Your task to perform on an android device: Open calendar and show me the fourth week of next month Image 0: 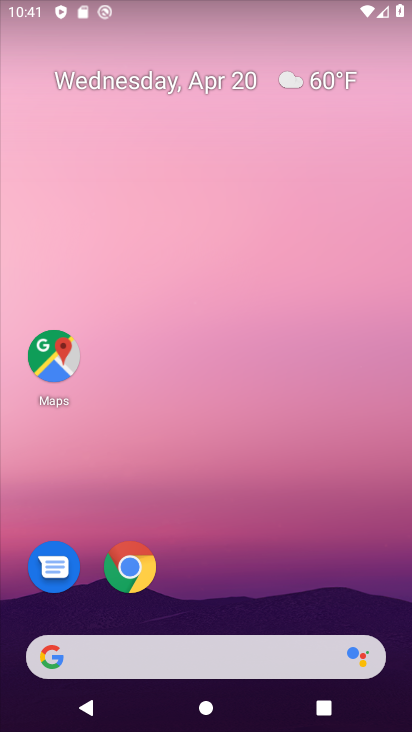
Step 0: drag from (264, 586) to (253, 22)
Your task to perform on an android device: Open calendar and show me the fourth week of next month Image 1: 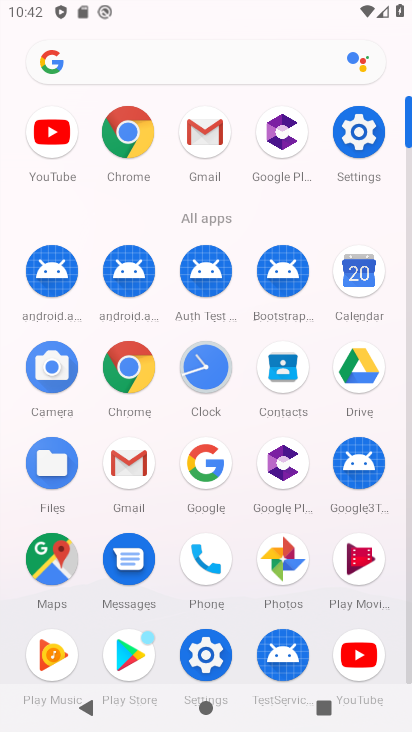
Step 1: click (373, 266)
Your task to perform on an android device: Open calendar and show me the fourth week of next month Image 2: 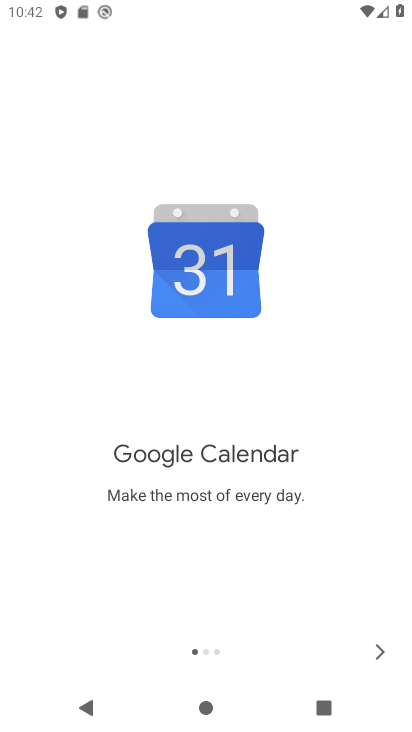
Step 2: click (381, 651)
Your task to perform on an android device: Open calendar and show me the fourth week of next month Image 3: 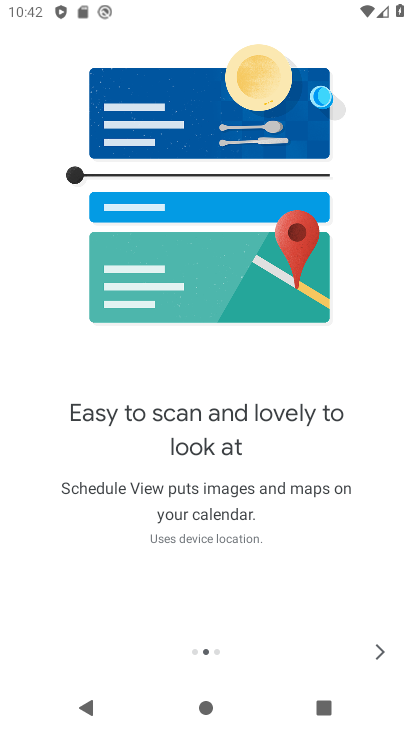
Step 3: click (382, 651)
Your task to perform on an android device: Open calendar and show me the fourth week of next month Image 4: 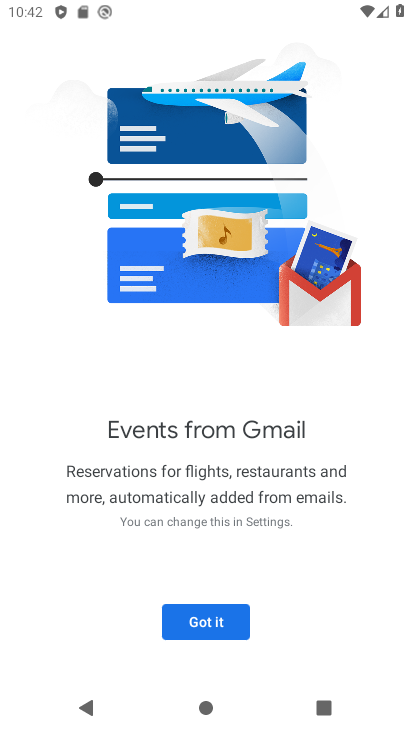
Step 4: click (187, 615)
Your task to perform on an android device: Open calendar and show me the fourth week of next month Image 5: 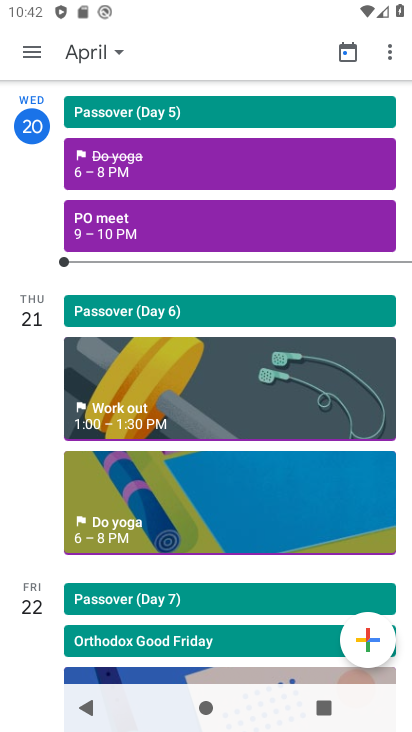
Step 5: click (22, 47)
Your task to perform on an android device: Open calendar and show me the fourth week of next month Image 6: 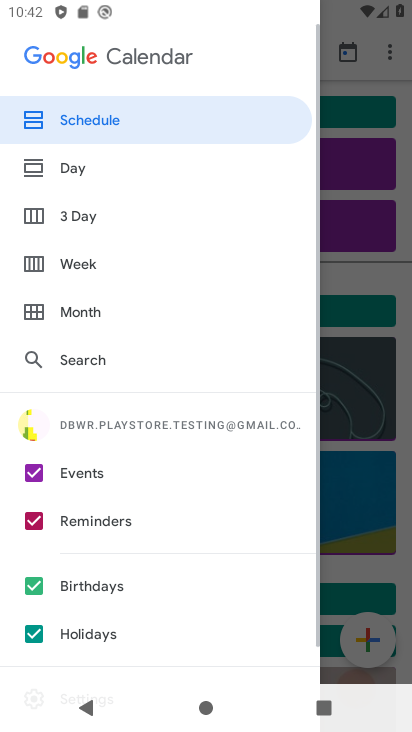
Step 6: click (108, 260)
Your task to perform on an android device: Open calendar and show me the fourth week of next month Image 7: 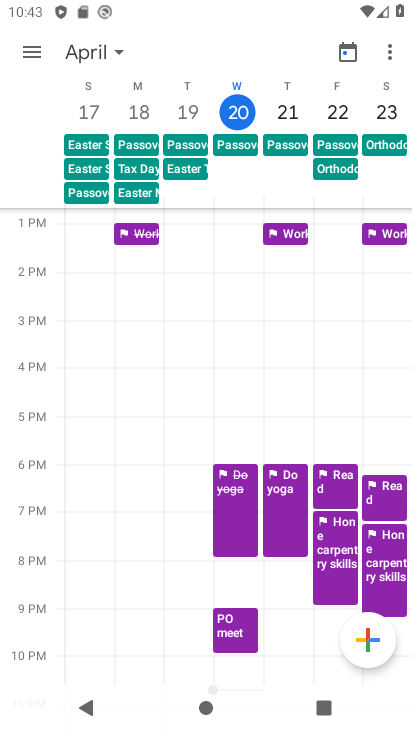
Step 7: click (110, 55)
Your task to perform on an android device: Open calendar and show me the fourth week of next month Image 8: 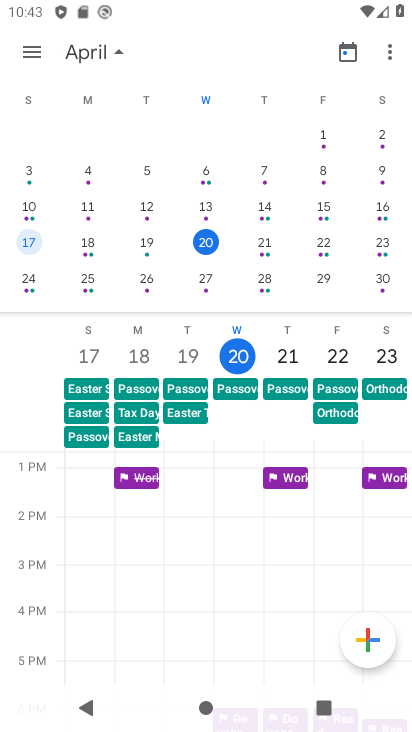
Step 8: drag from (374, 213) to (4, 210)
Your task to perform on an android device: Open calendar and show me the fourth week of next month Image 9: 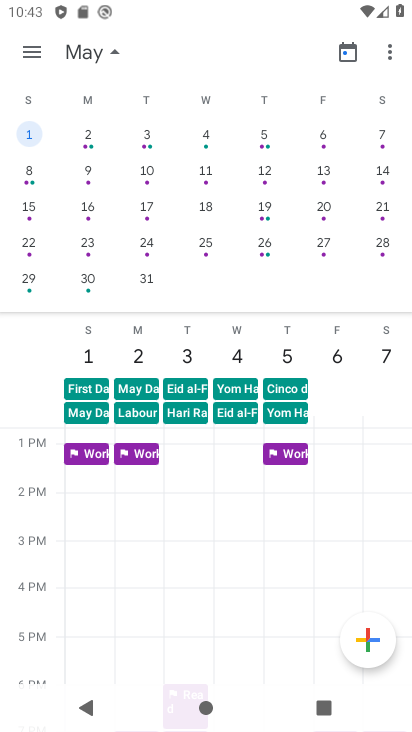
Step 9: click (88, 249)
Your task to perform on an android device: Open calendar and show me the fourth week of next month Image 10: 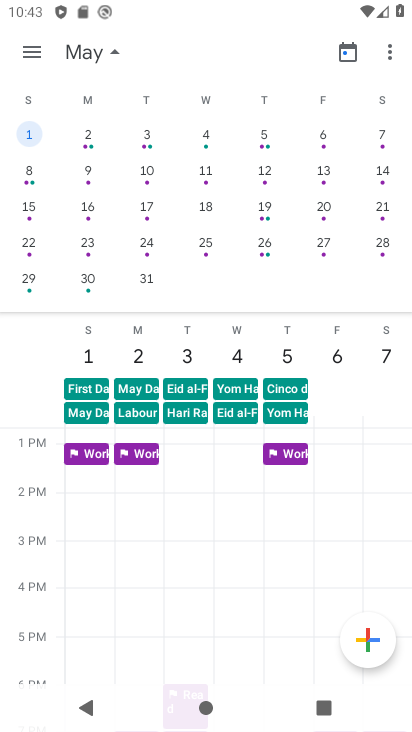
Step 10: click (93, 242)
Your task to perform on an android device: Open calendar and show me the fourth week of next month Image 11: 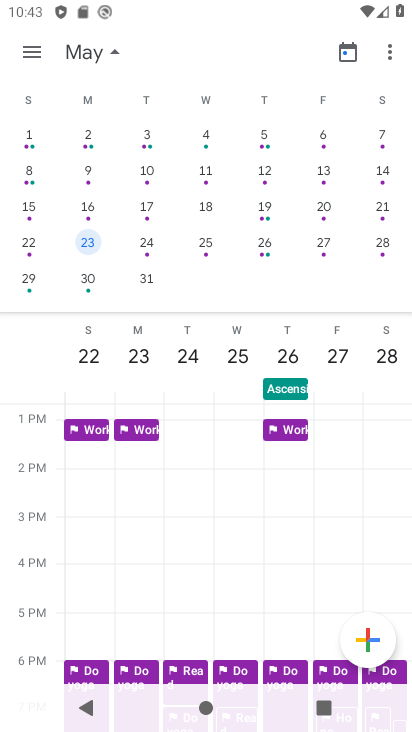
Step 11: task complete